Your task to perform on an android device: Turn off the flashlight Image 0: 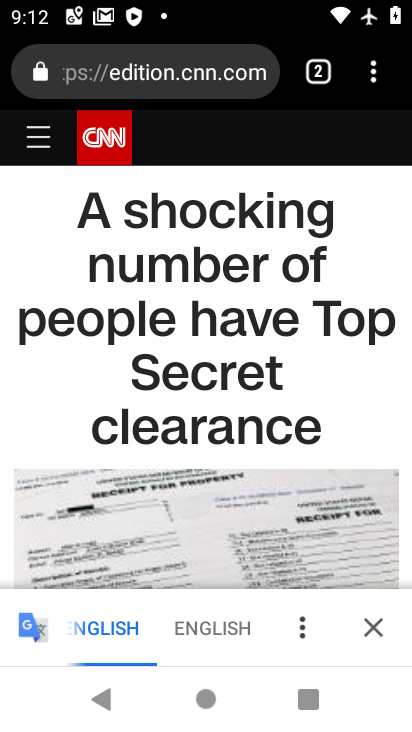
Step 0: press home button
Your task to perform on an android device: Turn off the flashlight Image 1: 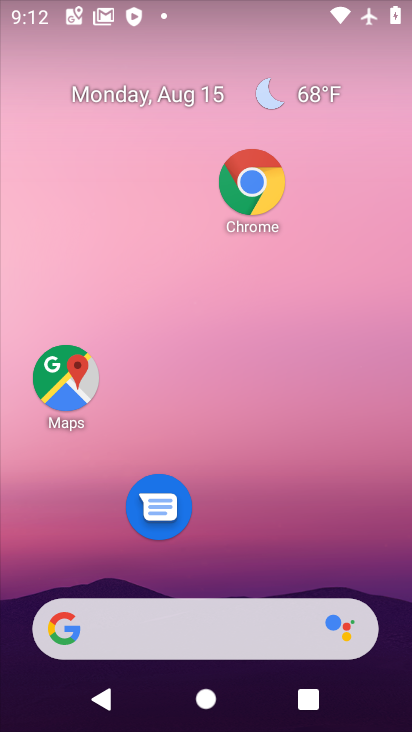
Step 1: drag from (237, 597) to (234, 179)
Your task to perform on an android device: Turn off the flashlight Image 2: 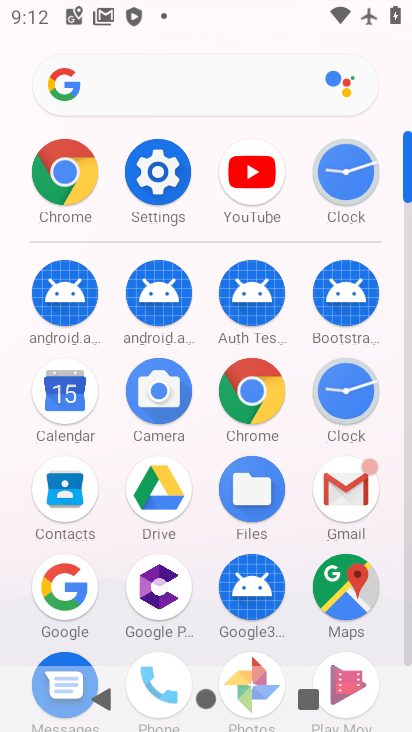
Step 2: click (177, 186)
Your task to perform on an android device: Turn off the flashlight Image 3: 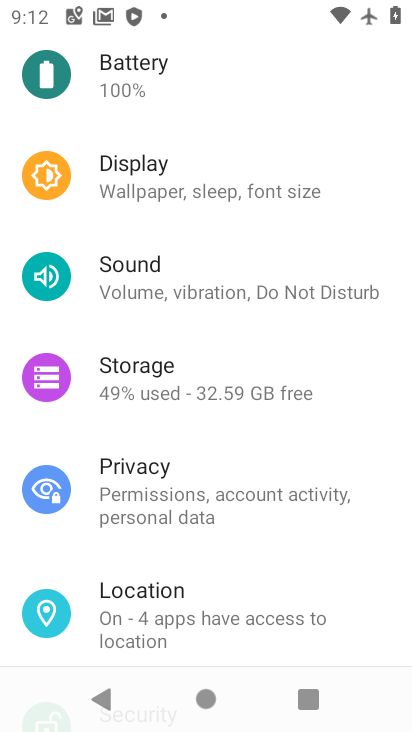
Step 3: task complete